Your task to perform on an android device: turn off smart reply in the gmail app Image 0: 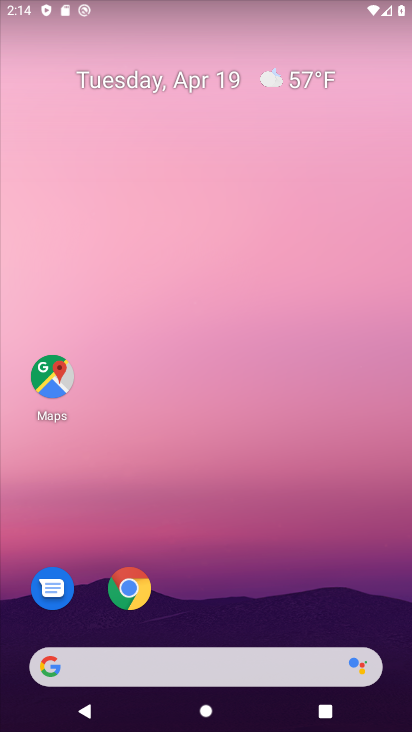
Step 0: drag from (254, 535) to (288, 140)
Your task to perform on an android device: turn off smart reply in the gmail app Image 1: 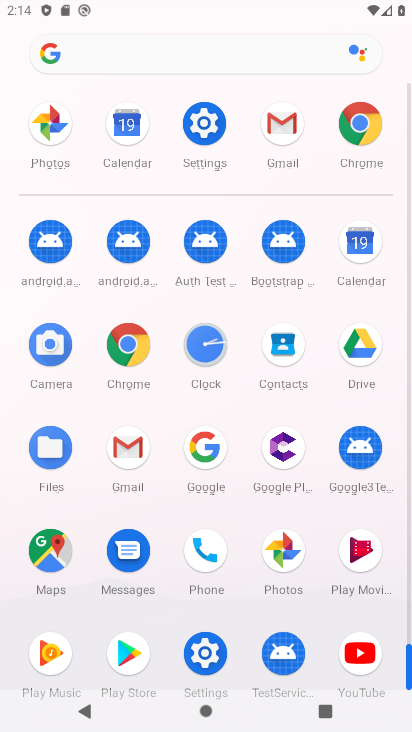
Step 1: click (289, 125)
Your task to perform on an android device: turn off smart reply in the gmail app Image 2: 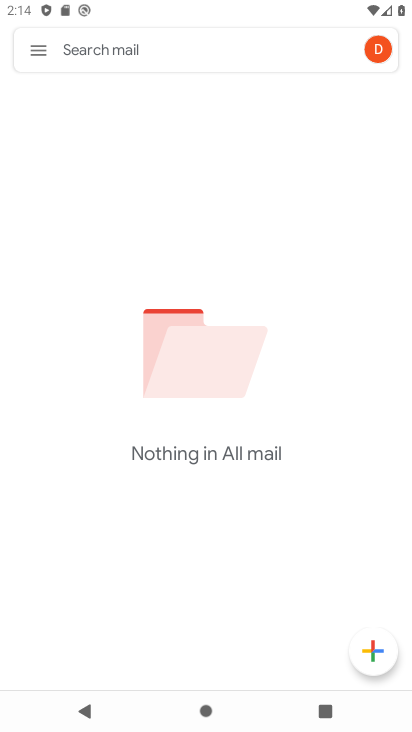
Step 2: click (38, 50)
Your task to perform on an android device: turn off smart reply in the gmail app Image 3: 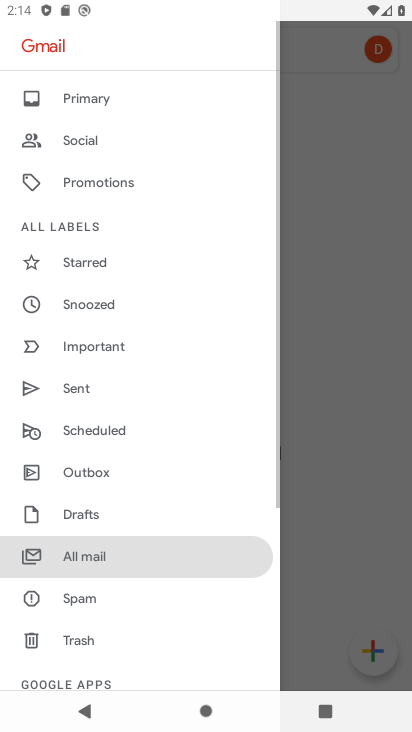
Step 3: drag from (160, 607) to (192, 330)
Your task to perform on an android device: turn off smart reply in the gmail app Image 4: 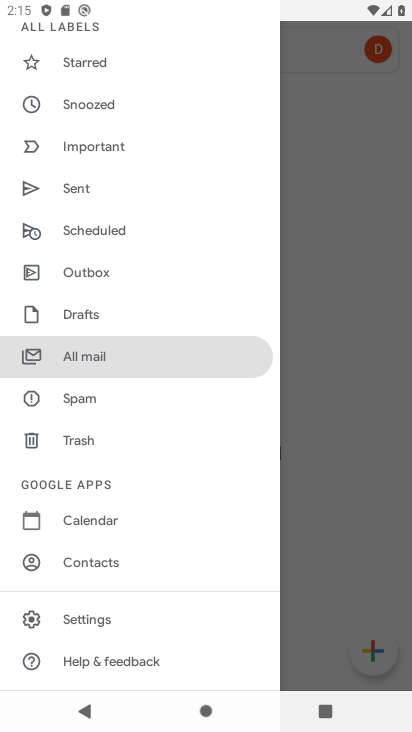
Step 4: click (127, 611)
Your task to perform on an android device: turn off smart reply in the gmail app Image 5: 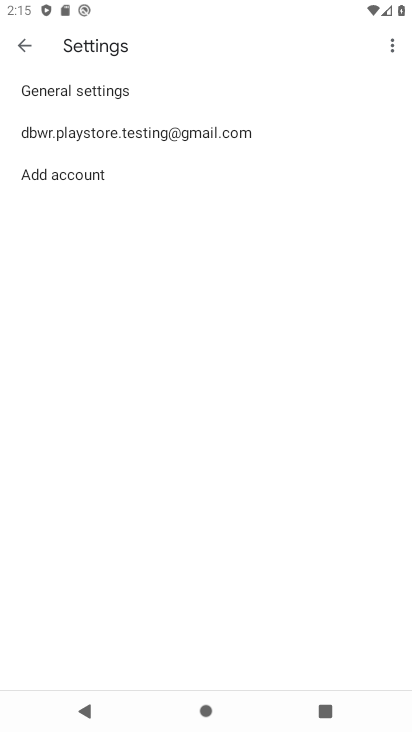
Step 5: click (229, 131)
Your task to perform on an android device: turn off smart reply in the gmail app Image 6: 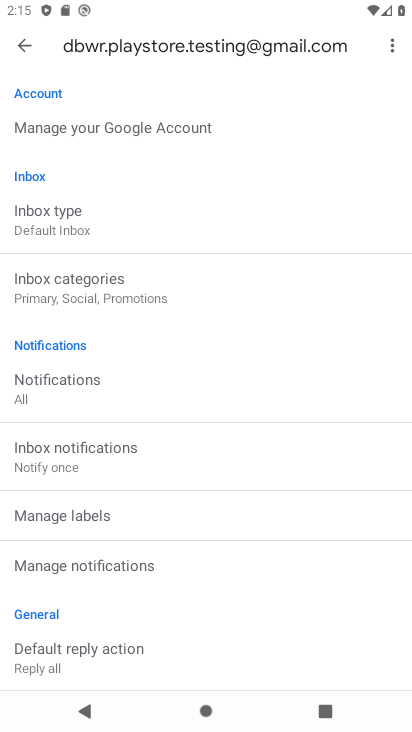
Step 6: drag from (230, 613) to (270, 151)
Your task to perform on an android device: turn off smart reply in the gmail app Image 7: 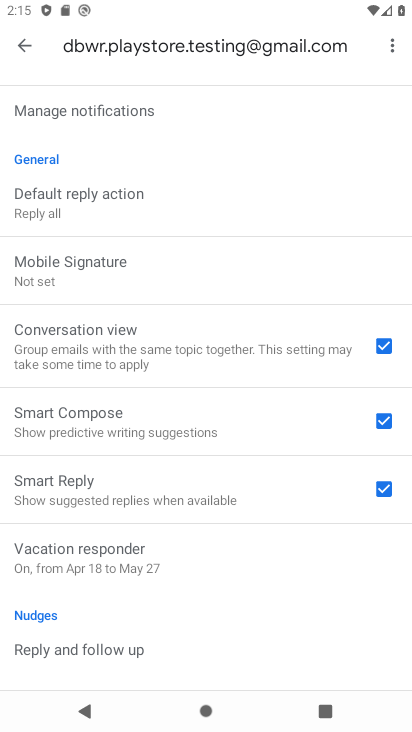
Step 7: click (383, 486)
Your task to perform on an android device: turn off smart reply in the gmail app Image 8: 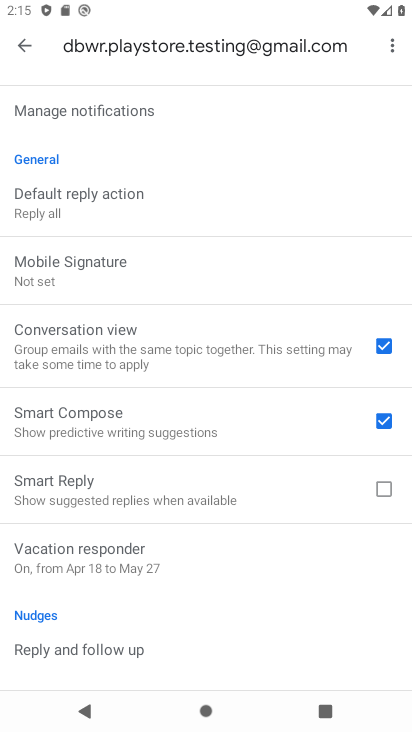
Step 8: task complete